Your task to perform on an android device: add a contact Image 0: 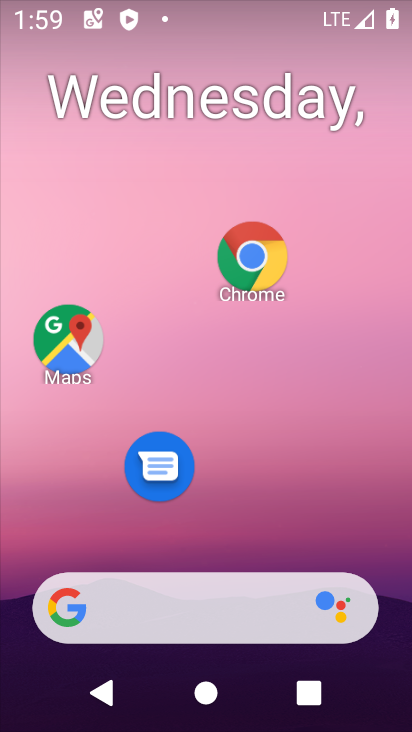
Step 0: drag from (303, 535) to (356, 131)
Your task to perform on an android device: add a contact Image 1: 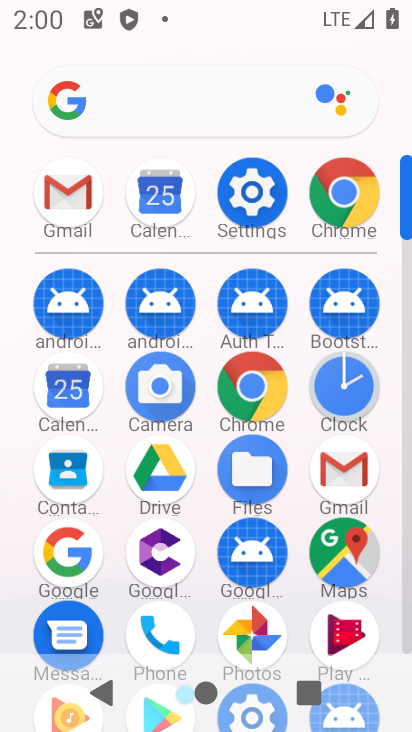
Step 1: drag from (305, 361) to (385, 1)
Your task to perform on an android device: add a contact Image 2: 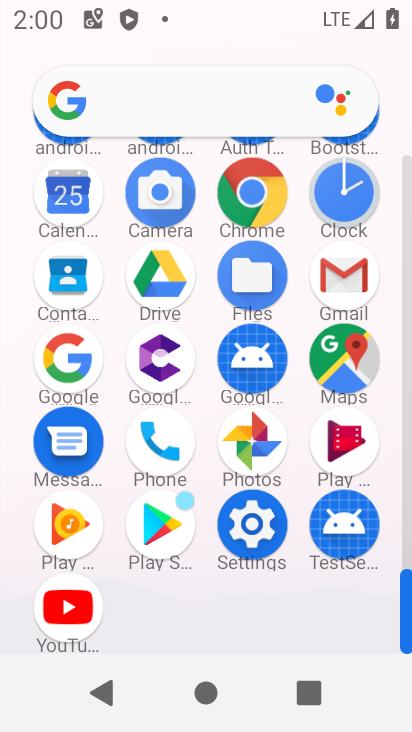
Step 2: click (81, 286)
Your task to perform on an android device: add a contact Image 3: 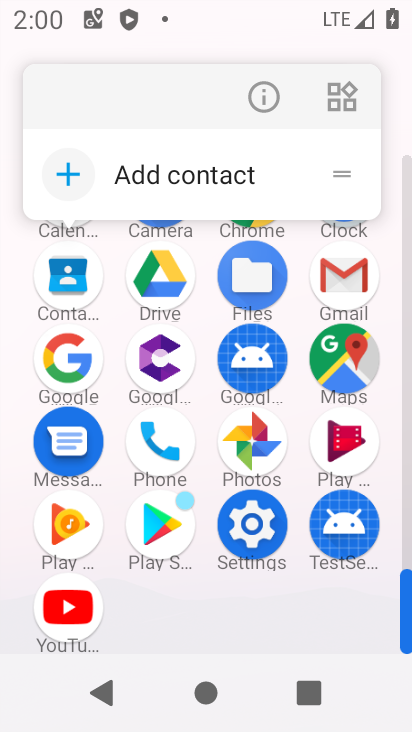
Step 3: click (63, 275)
Your task to perform on an android device: add a contact Image 4: 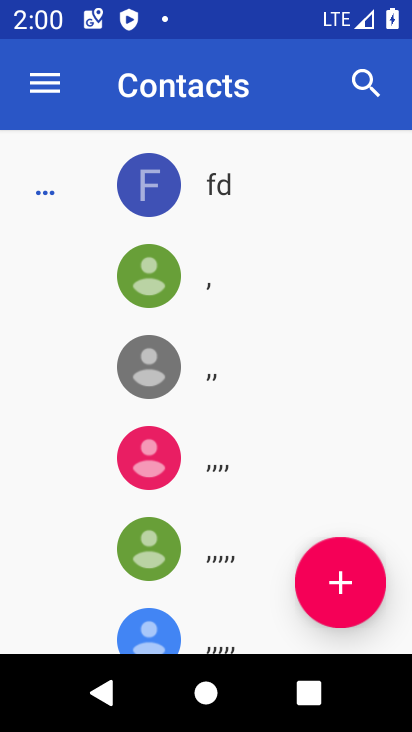
Step 4: click (354, 571)
Your task to perform on an android device: add a contact Image 5: 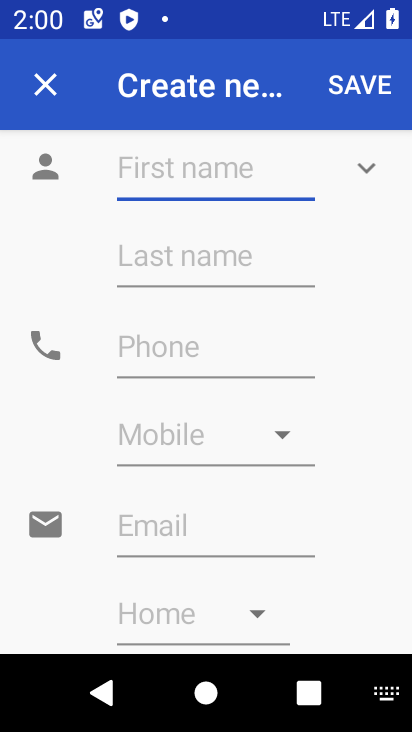
Step 5: type "nbmg"
Your task to perform on an android device: add a contact Image 6: 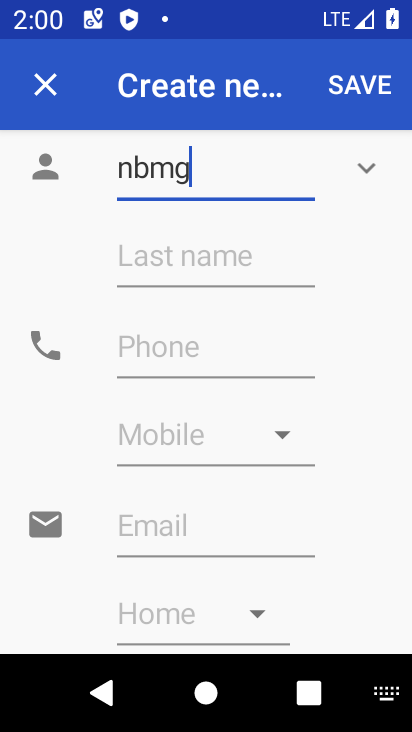
Step 6: click (194, 351)
Your task to perform on an android device: add a contact Image 7: 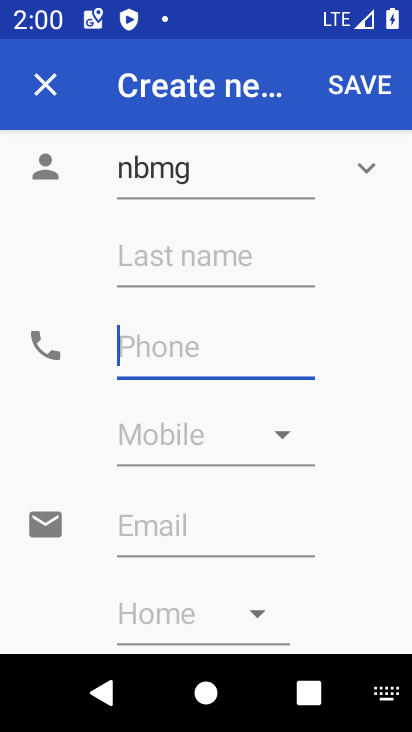
Step 7: type "8760"
Your task to perform on an android device: add a contact Image 8: 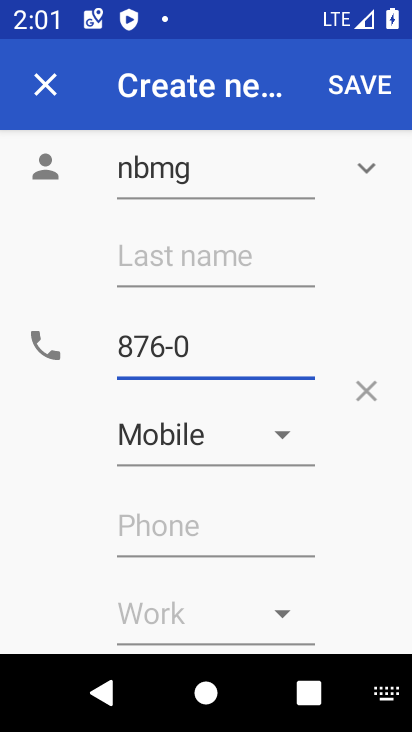
Step 8: click (357, 81)
Your task to perform on an android device: add a contact Image 9: 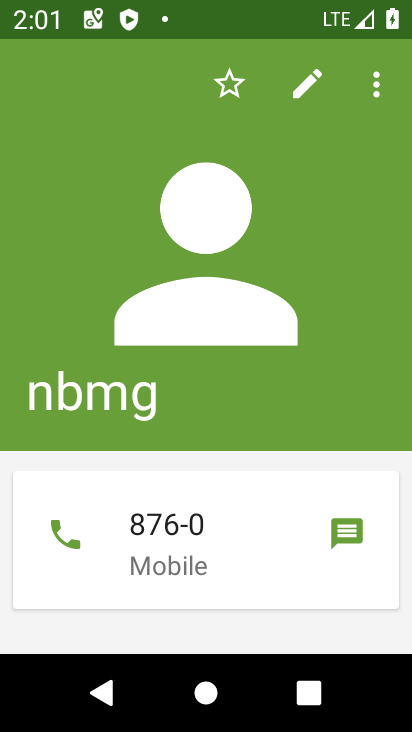
Step 9: task complete